Your task to perform on an android device: open the mobile data screen to see how much data has been used Image 0: 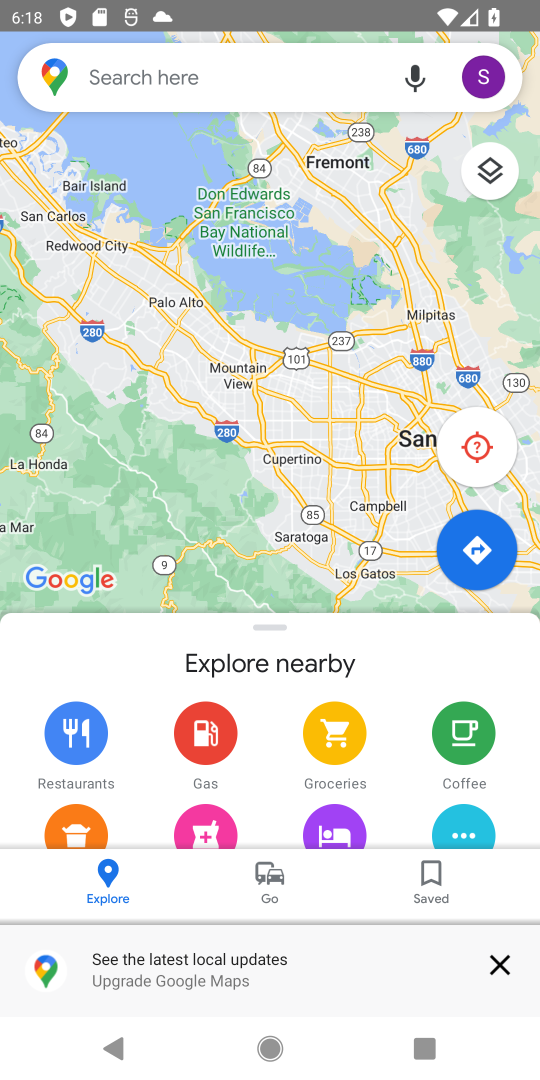
Step 0: click (500, 965)
Your task to perform on an android device: open the mobile data screen to see how much data has been used Image 1: 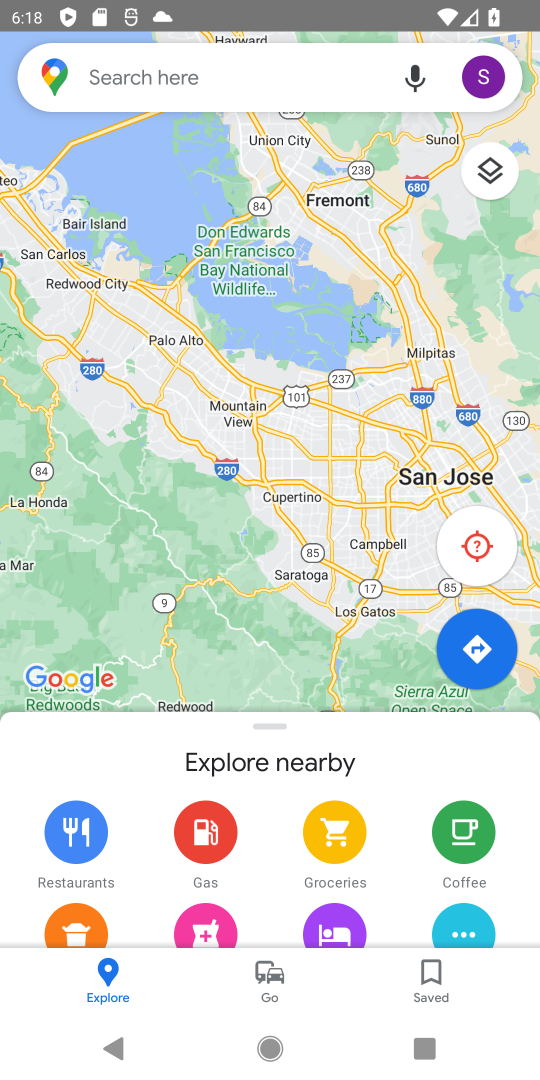
Step 1: press home button
Your task to perform on an android device: open the mobile data screen to see how much data has been used Image 2: 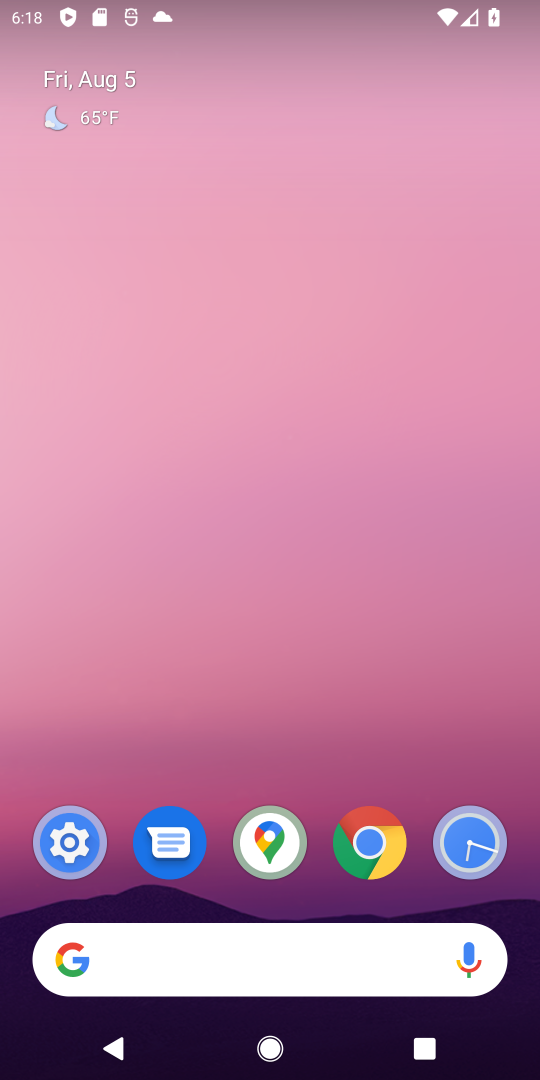
Step 2: drag from (30, 784) to (368, 81)
Your task to perform on an android device: open the mobile data screen to see how much data has been used Image 3: 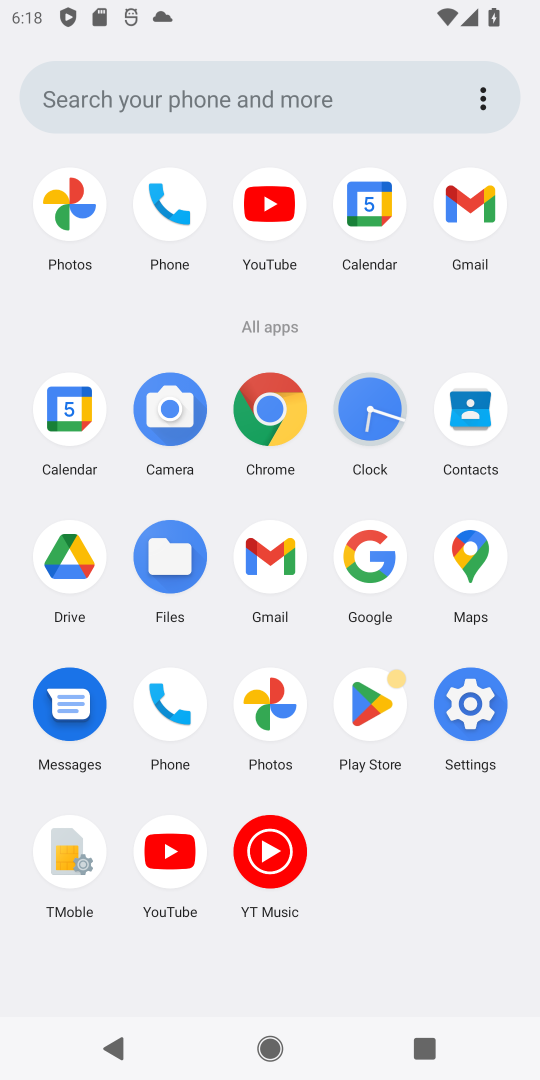
Step 3: click (465, 712)
Your task to perform on an android device: open the mobile data screen to see how much data has been used Image 4: 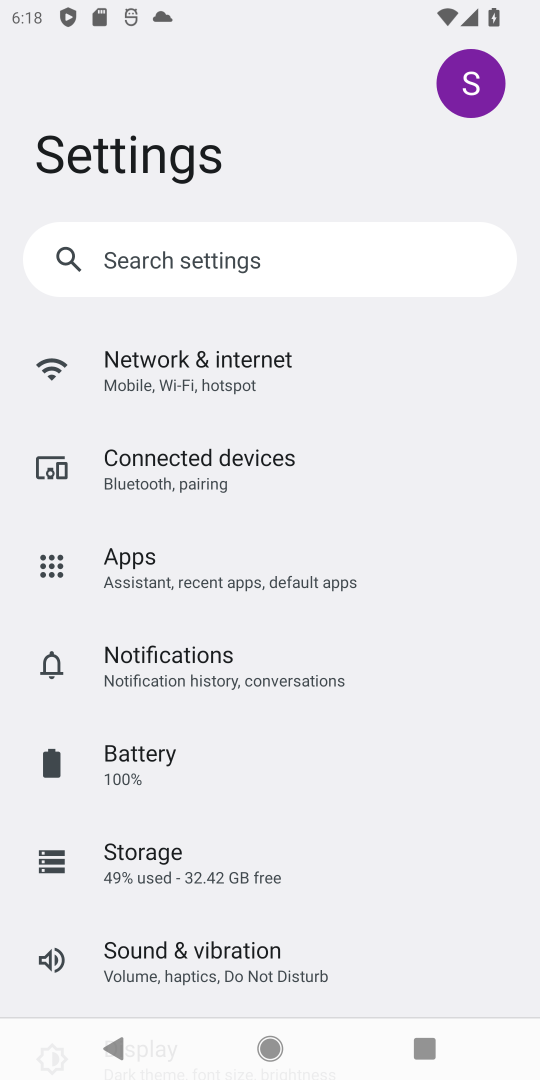
Step 4: click (157, 376)
Your task to perform on an android device: open the mobile data screen to see how much data has been used Image 5: 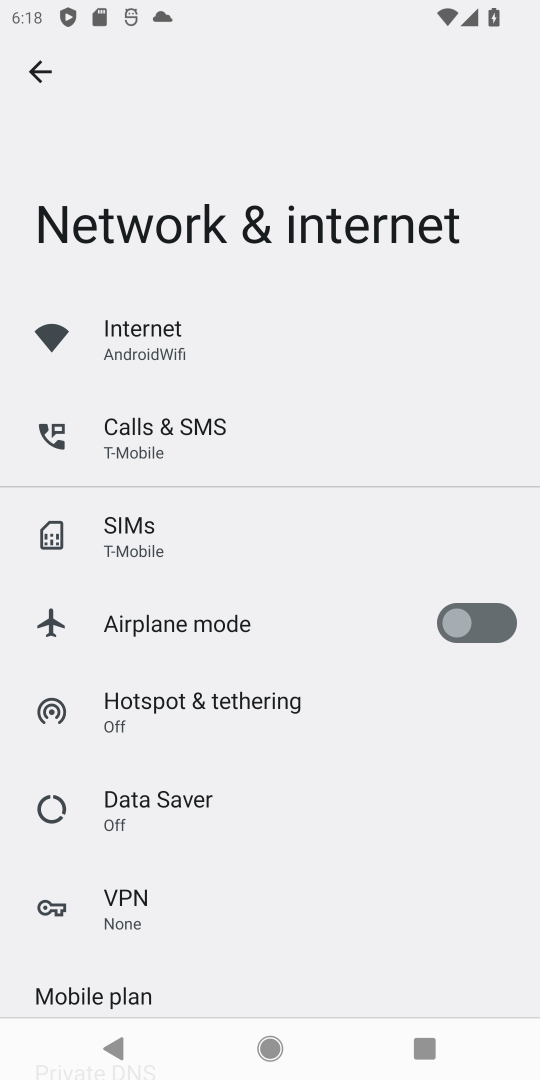
Step 5: click (169, 349)
Your task to perform on an android device: open the mobile data screen to see how much data has been used Image 6: 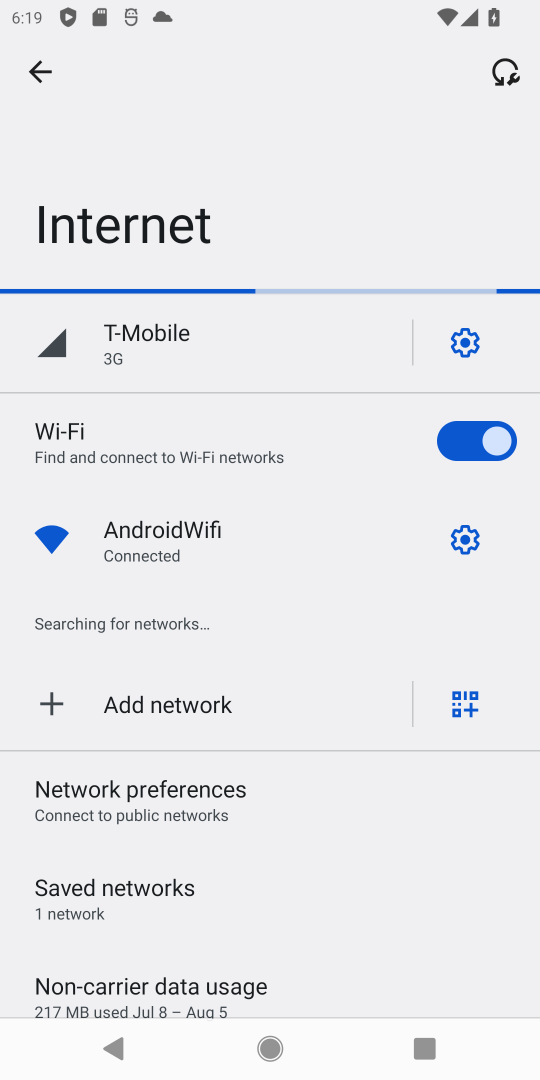
Step 6: click (120, 327)
Your task to perform on an android device: open the mobile data screen to see how much data has been used Image 7: 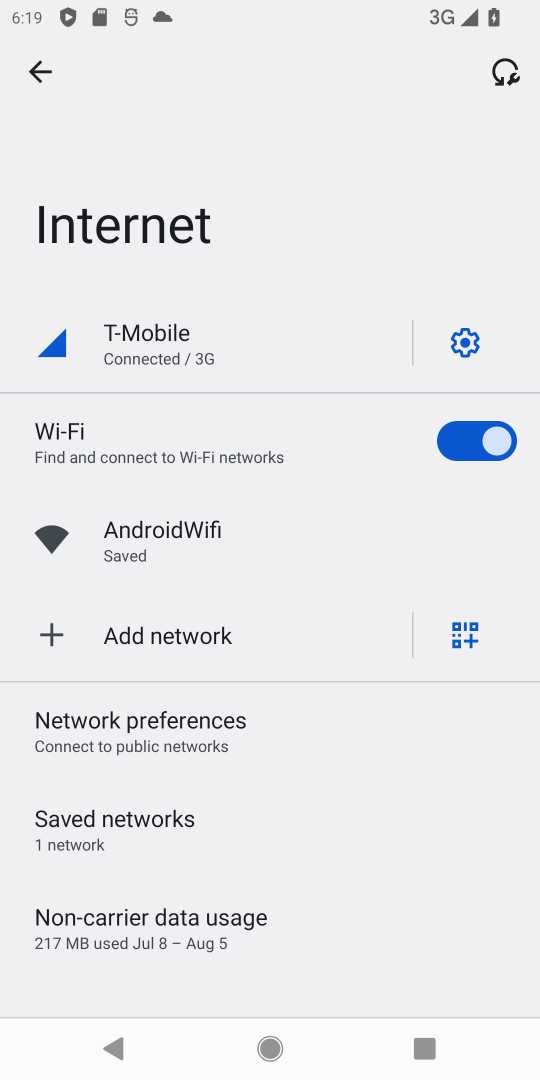
Step 7: click (191, 326)
Your task to perform on an android device: open the mobile data screen to see how much data has been used Image 8: 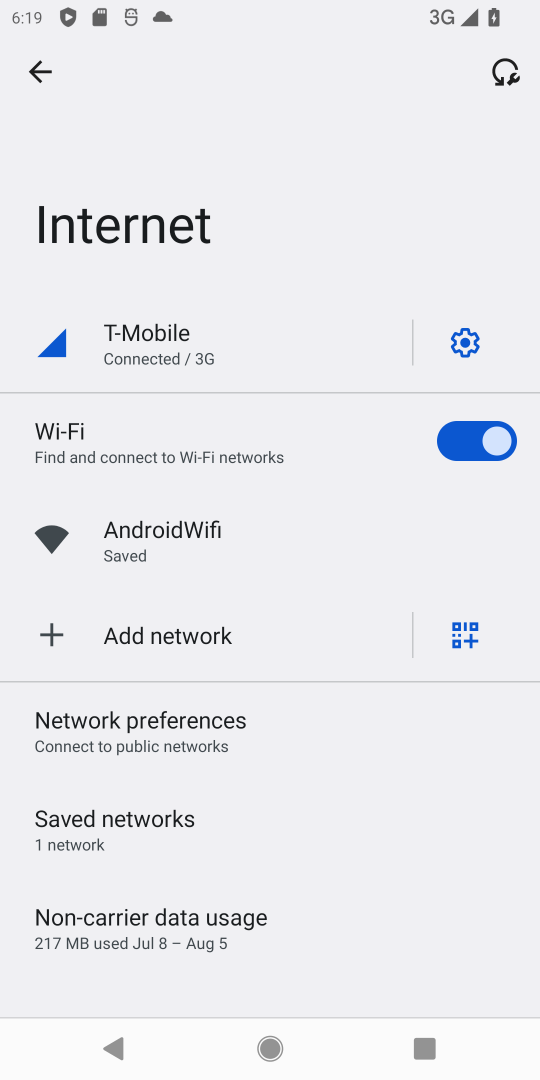
Step 8: task complete